Your task to perform on an android device: move a message to another label in the gmail app Image 0: 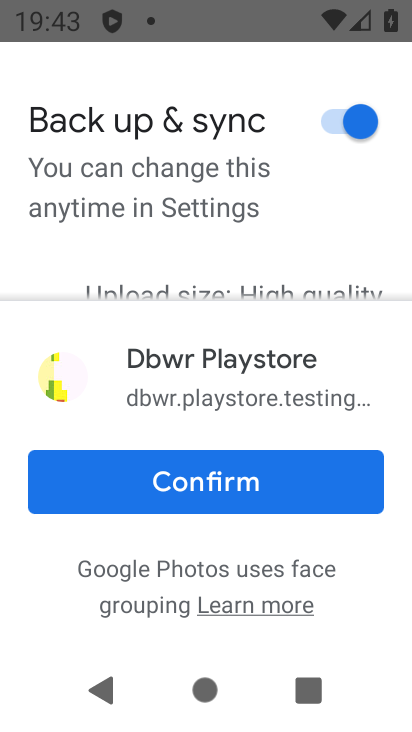
Step 0: press home button
Your task to perform on an android device: move a message to another label in the gmail app Image 1: 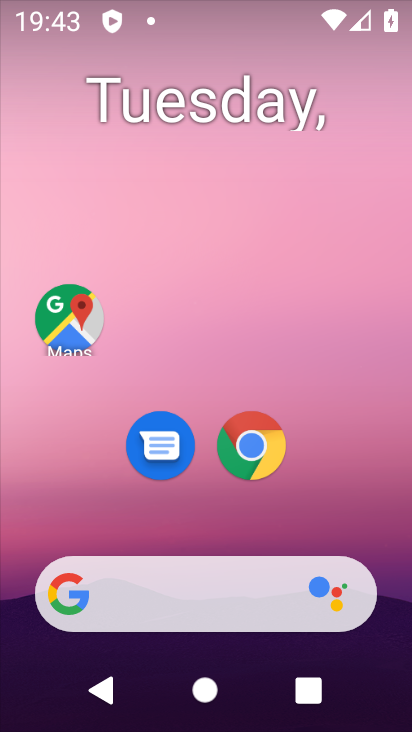
Step 1: drag from (195, 546) to (170, 2)
Your task to perform on an android device: move a message to another label in the gmail app Image 2: 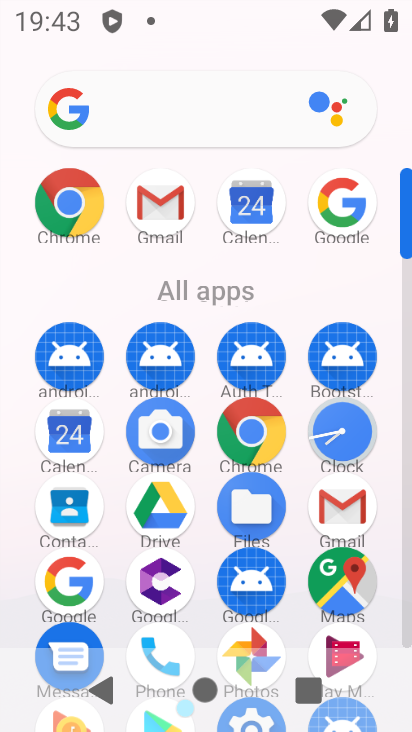
Step 2: click (155, 206)
Your task to perform on an android device: move a message to another label in the gmail app Image 3: 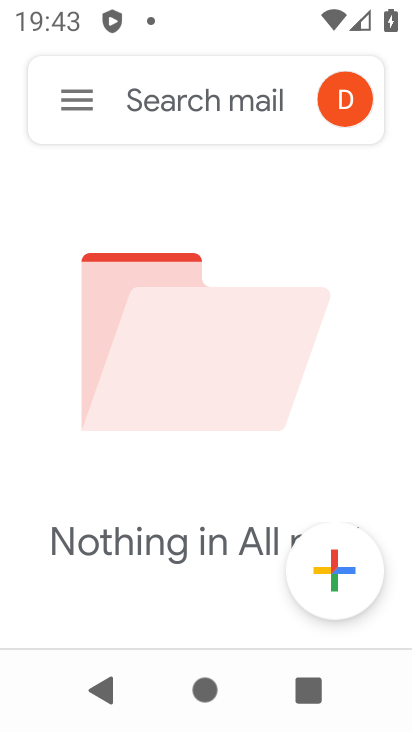
Step 3: click (75, 107)
Your task to perform on an android device: move a message to another label in the gmail app Image 4: 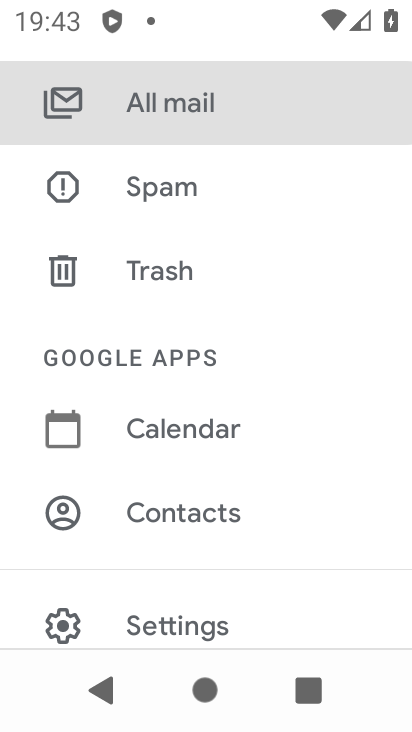
Step 4: task complete